Your task to perform on an android device: Go to internet settings Image 0: 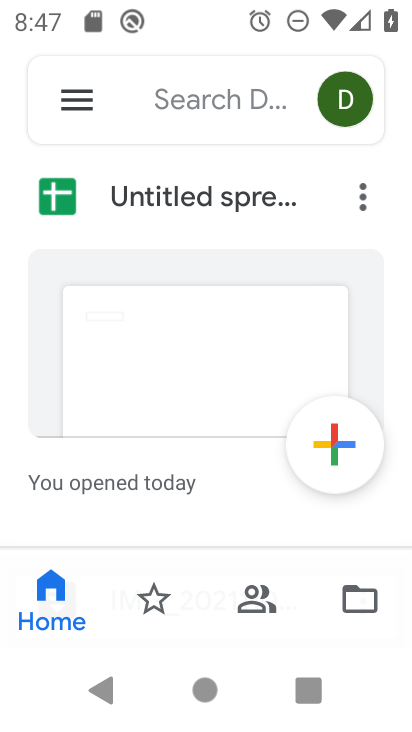
Step 0: press home button
Your task to perform on an android device: Go to internet settings Image 1: 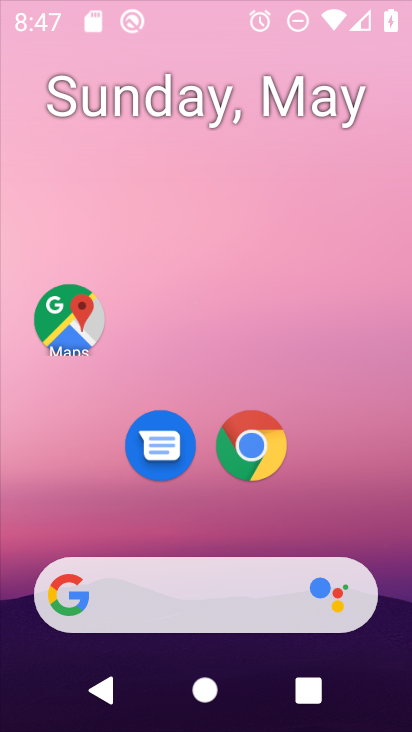
Step 1: drag from (211, 646) to (315, 101)
Your task to perform on an android device: Go to internet settings Image 2: 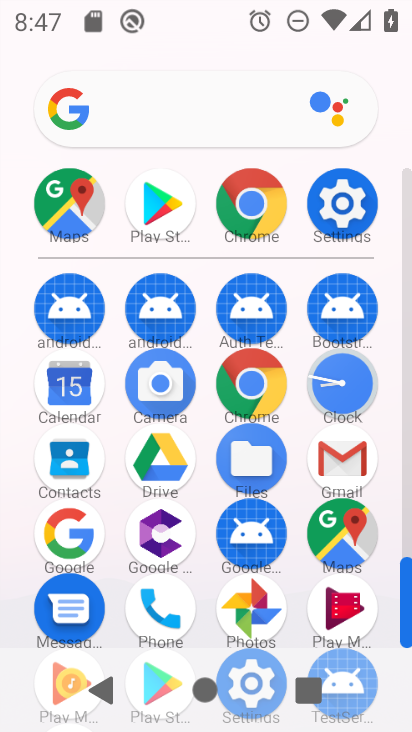
Step 2: click (348, 219)
Your task to perform on an android device: Go to internet settings Image 3: 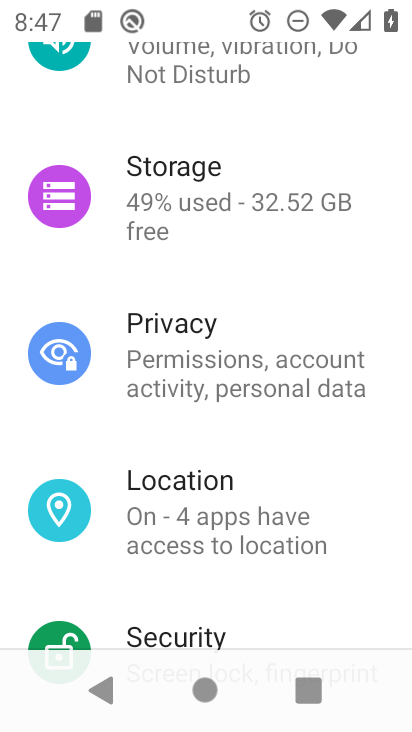
Step 3: drag from (228, 243) to (192, 580)
Your task to perform on an android device: Go to internet settings Image 4: 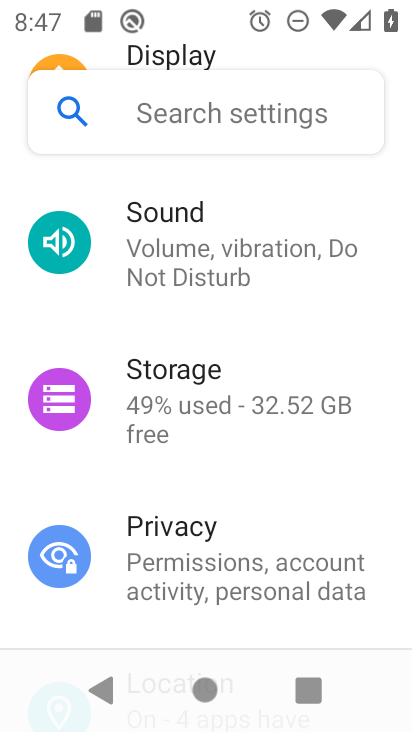
Step 4: drag from (245, 326) to (237, 697)
Your task to perform on an android device: Go to internet settings Image 5: 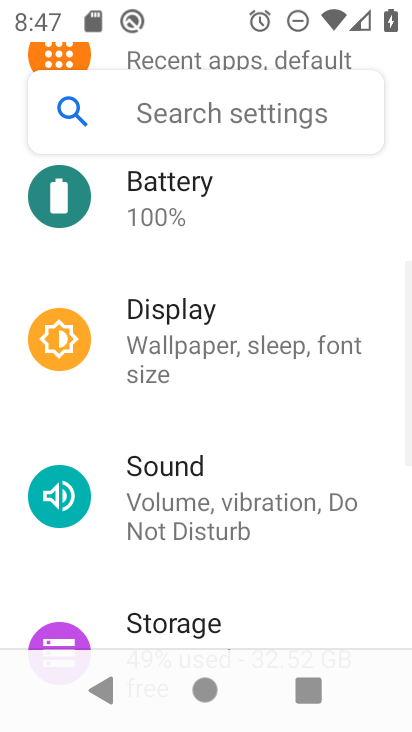
Step 5: drag from (237, 343) to (240, 669)
Your task to perform on an android device: Go to internet settings Image 6: 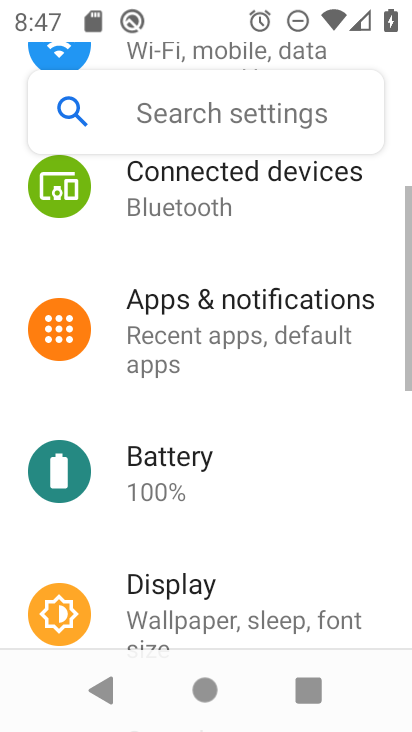
Step 6: drag from (233, 425) to (221, 714)
Your task to perform on an android device: Go to internet settings Image 7: 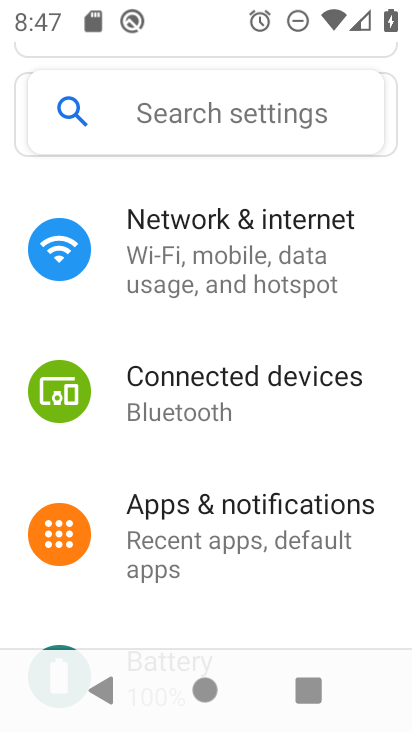
Step 7: click (241, 258)
Your task to perform on an android device: Go to internet settings Image 8: 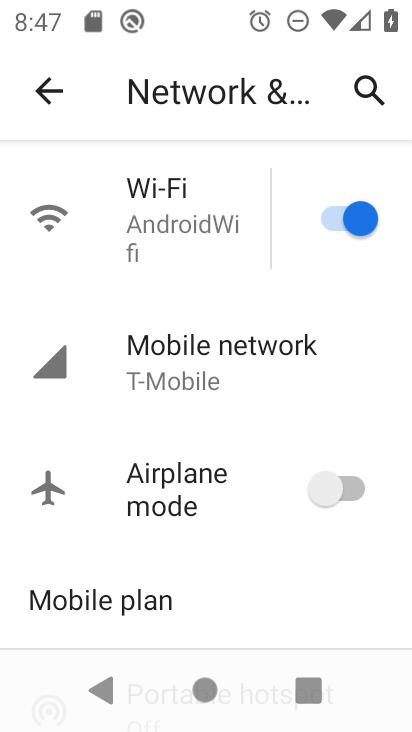
Step 8: drag from (202, 487) to (235, 289)
Your task to perform on an android device: Go to internet settings Image 9: 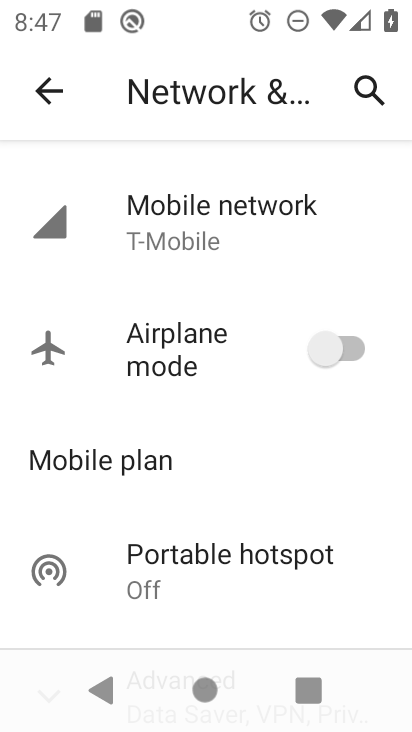
Step 9: click (272, 219)
Your task to perform on an android device: Go to internet settings Image 10: 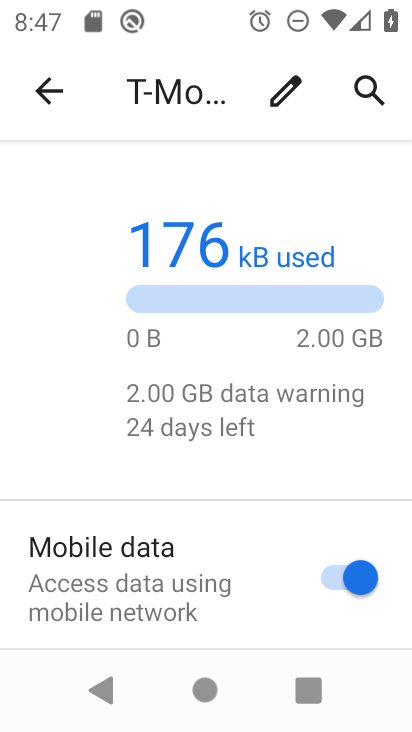
Step 10: drag from (215, 542) to (265, 163)
Your task to perform on an android device: Go to internet settings Image 11: 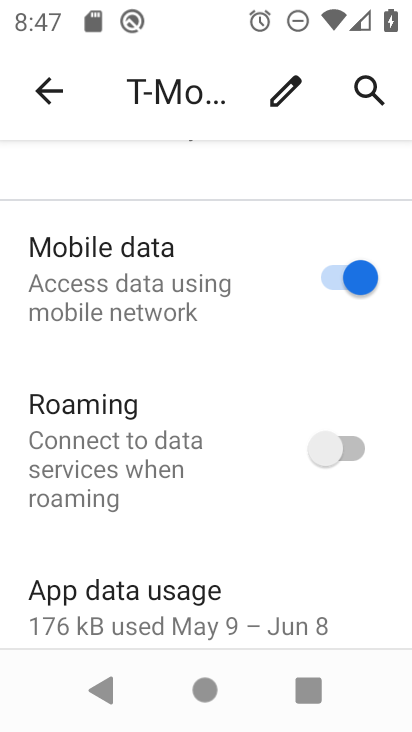
Step 11: click (177, 613)
Your task to perform on an android device: Go to internet settings Image 12: 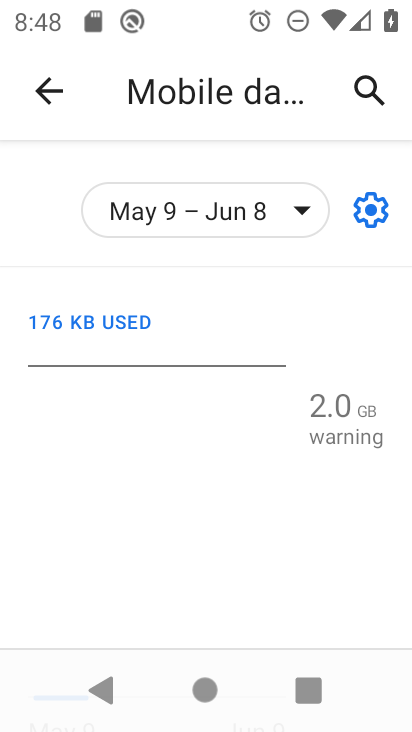
Step 12: task complete